Your task to perform on an android device: Open Chrome and go to settings Image 0: 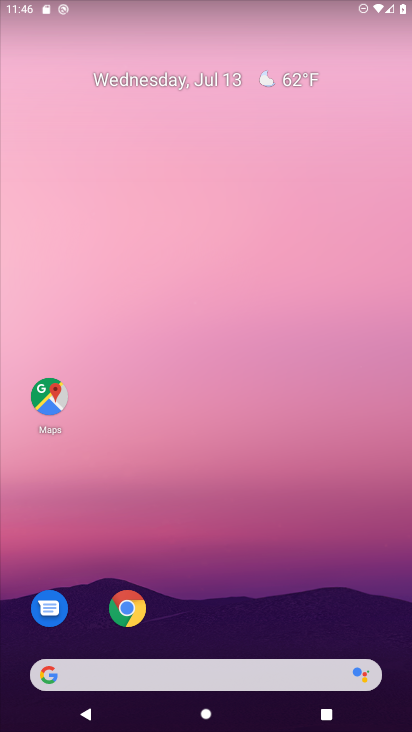
Step 0: click (130, 607)
Your task to perform on an android device: Open Chrome and go to settings Image 1: 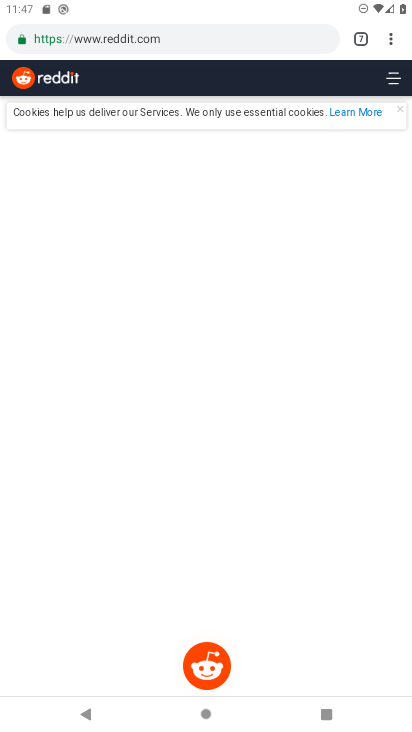
Step 1: click (390, 40)
Your task to perform on an android device: Open Chrome and go to settings Image 2: 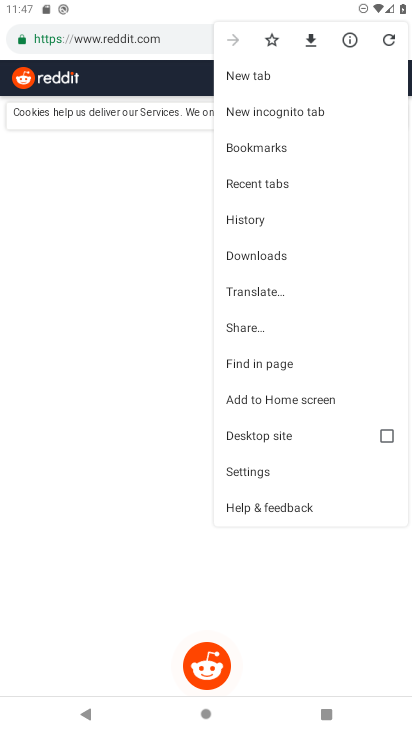
Step 2: click (255, 466)
Your task to perform on an android device: Open Chrome and go to settings Image 3: 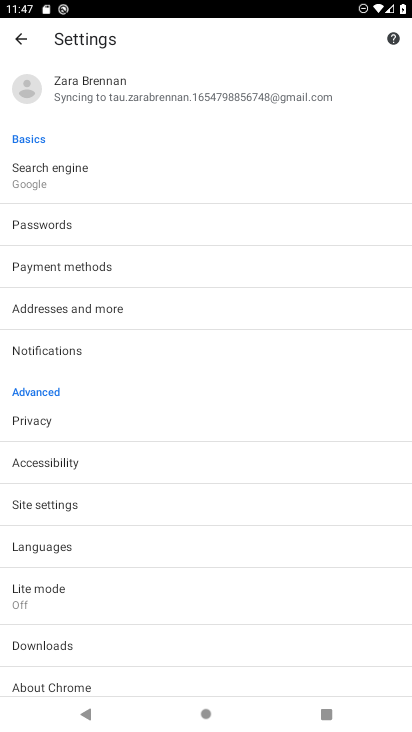
Step 3: task complete